Your task to perform on an android device: set an alarm Image 0: 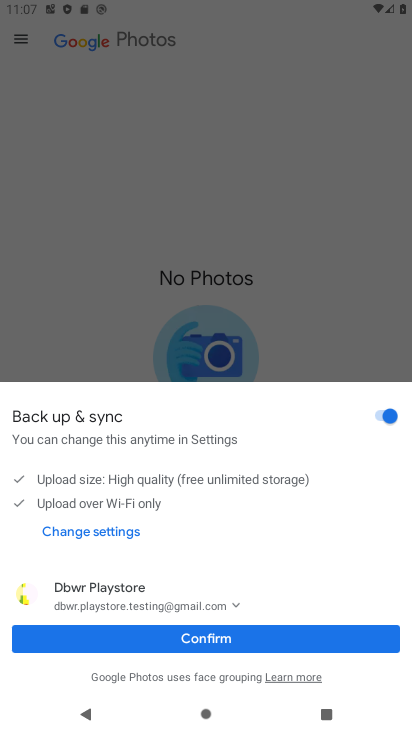
Step 0: click (214, 637)
Your task to perform on an android device: set an alarm Image 1: 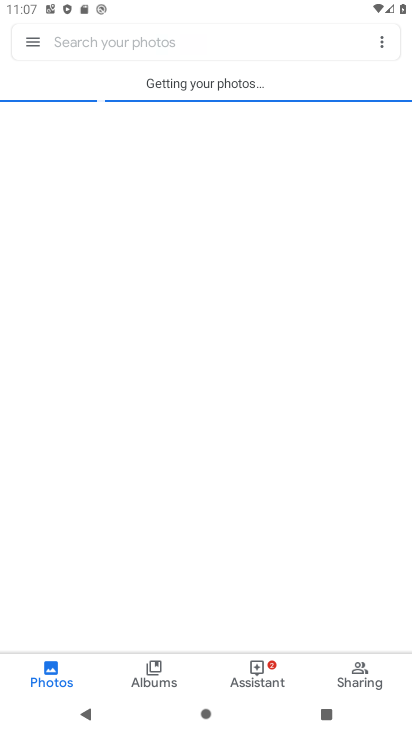
Step 1: press home button
Your task to perform on an android device: set an alarm Image 2: 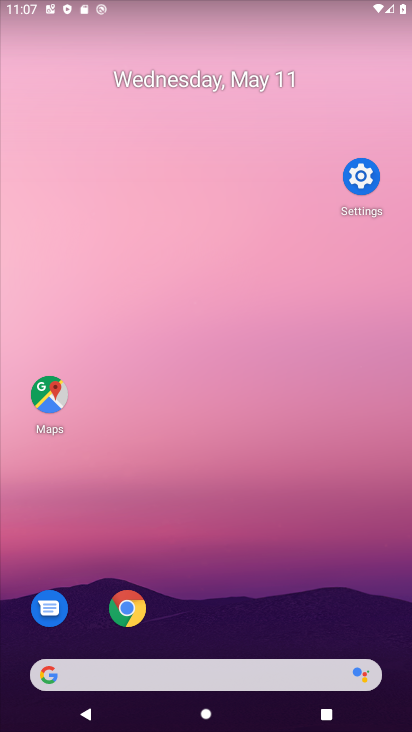
Step 2: drag from (353, 600) to (220, 161)
Your task to perform on an android device: set an alarm Image 3: 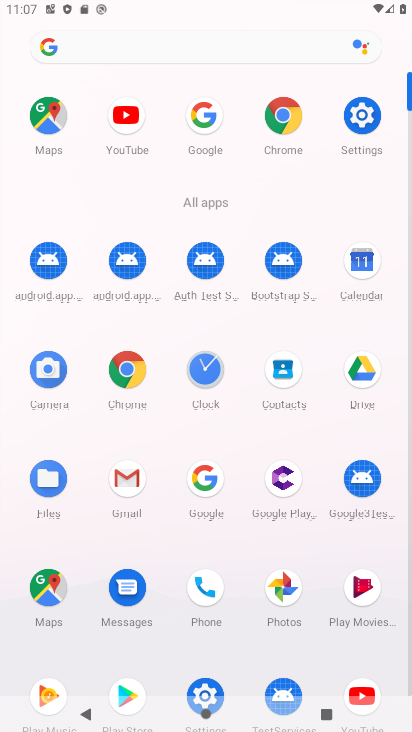
Step 3: drag from (248, 585) to (198, 219)
Your task to perform on an android device: set an alarm Image 4: 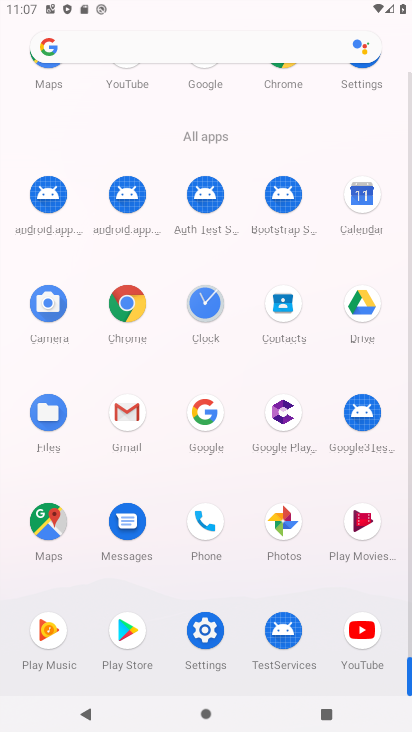
Step 4: click (208, 310)
Your task to perform on an android device: set an alarm Image 5: 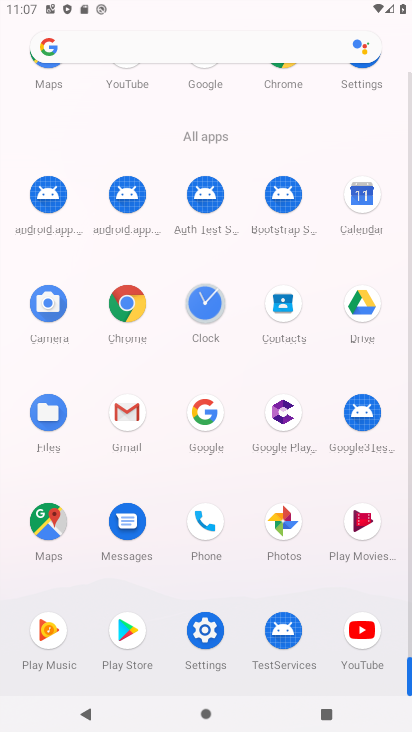
Step 5: click (207, 309)
Your task to perform on an android device: set an alarm Image 6: 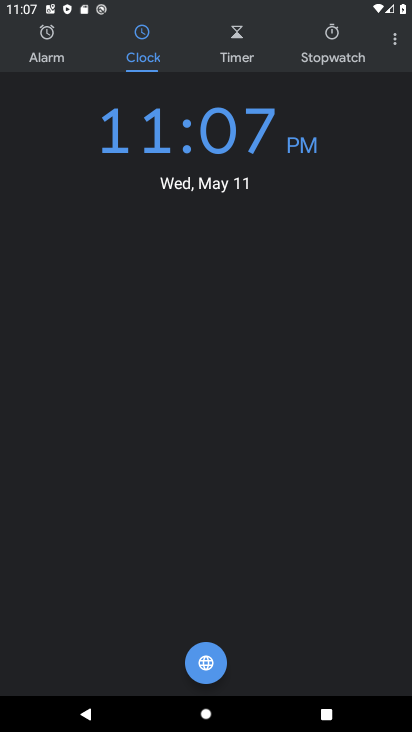
Step 6: click (50, 49)
Your task to perform on an android device: set an alarm Image 7: 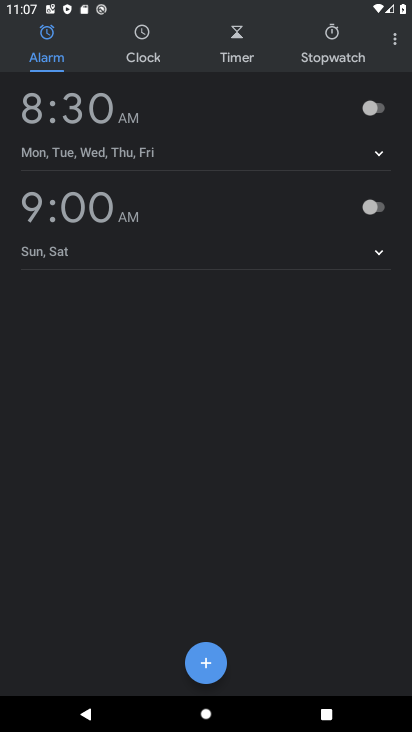
Step 7: click (373, 200)
Your task to perform on an android device: set an alarm Image 8: 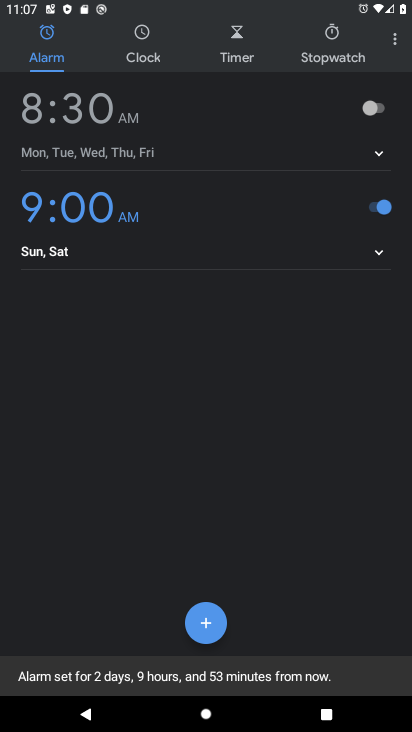
Step 8: task complete